Your task to perform on an android device: Clear the cart on bestbuy.com. Search for razer nari on bestbuy.com, select the first entry, add it to the cart, then select checkout. Image 0: 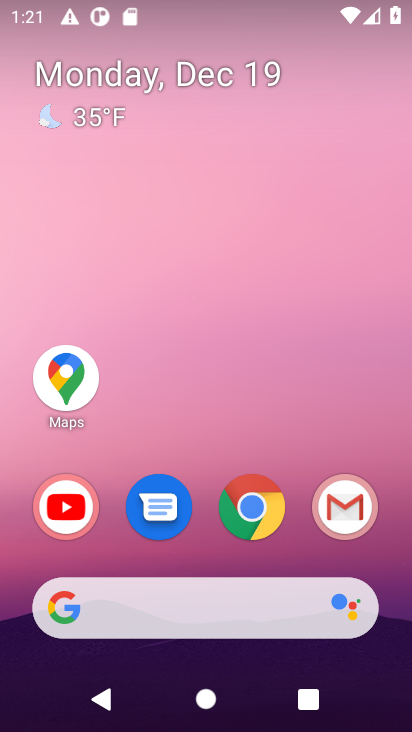
Step 0: click (255, 507)
Your task to perform on an android device: Clear the cart on bestbuy.com. Search for razer nari on bestbuy.com, select the first entry, add it to the cart, then select checkout. Image 1: 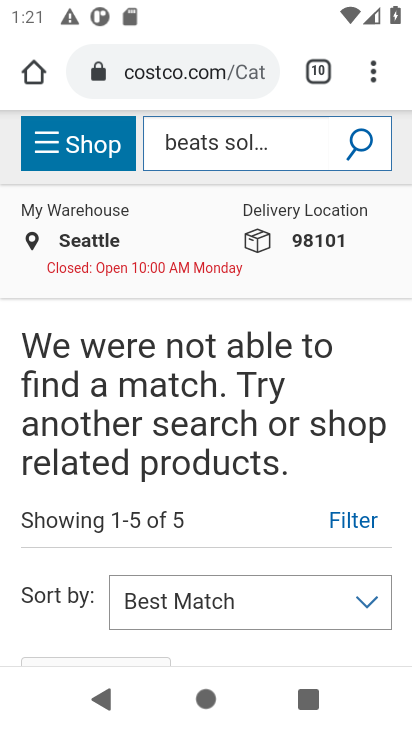
Step 1: click (197, 76)
Your task to perform on an android device: Clear the cart on bestbuy.com. Search for razer nari on bestbuy.com, select the first entry, add it to the cart, then select checkout. Image 2: 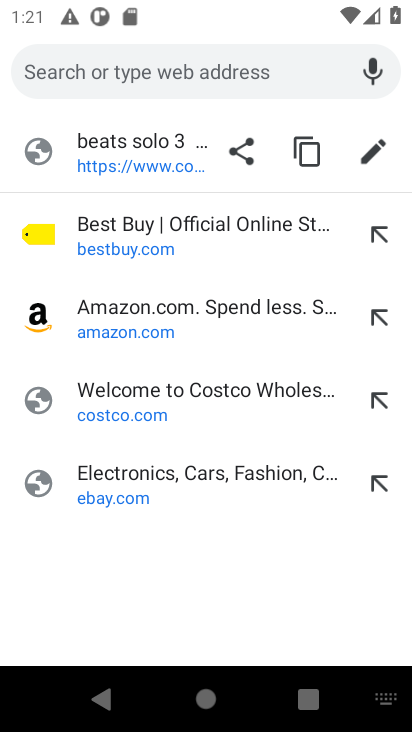
Step 2: click (100, 242)
Your task to perform on an android device: Clear the cart on bestbuy.com. Search for razer nari on bestbuy.com, select the first entry, add it to the cart, then select checkout. Image 3: 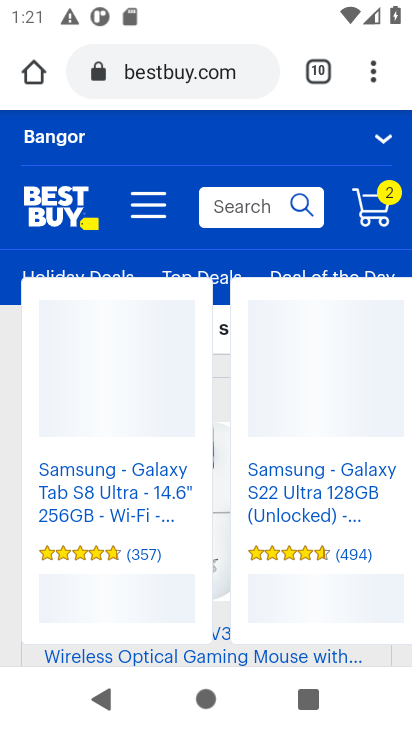
Step 3: click (381, 212)
Your task to perform on an android device: Clear the cart on bestbuy.com. Search for razer nari on bestbuy.com, select the first entry, add it to the cart, then select checkout. Image 4: 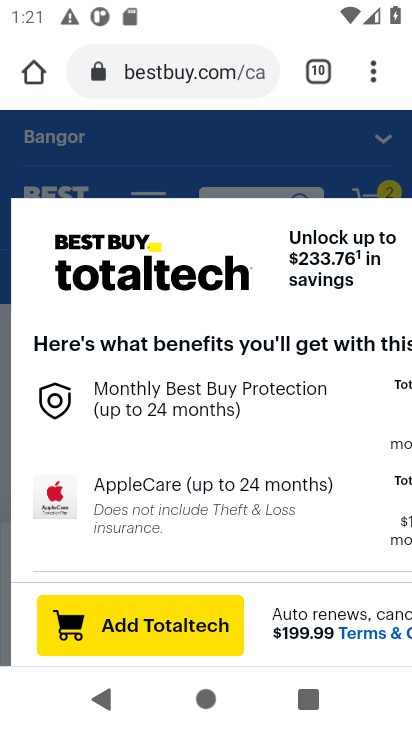
Step 4: drag from (178, 426) to (188, 104)
Your task to perform on an android device: Clear the cart on bestbuy.com. Search for razer nari on bestbuy.com, select the first entry, add it to the cart, then select checkout. Image 5: 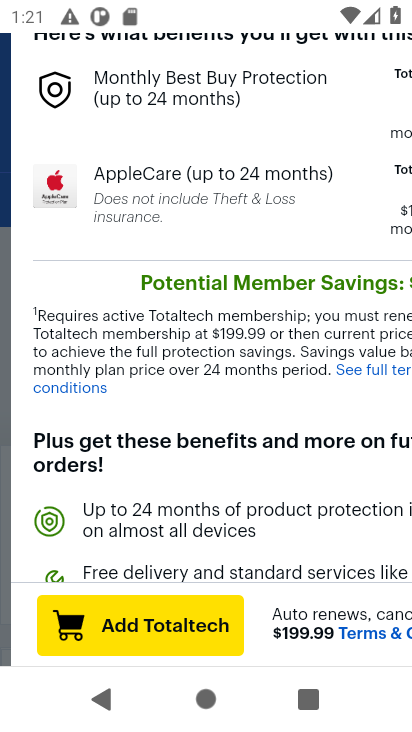
Step 5: drag from (192, 381) to (177, 88)
Your task to perform on an android device: Clear the cart on bestbuy.com. Search for razer nari on bestbuy.com, select the first entry, add it to the cart, then select checkout. Image 6: 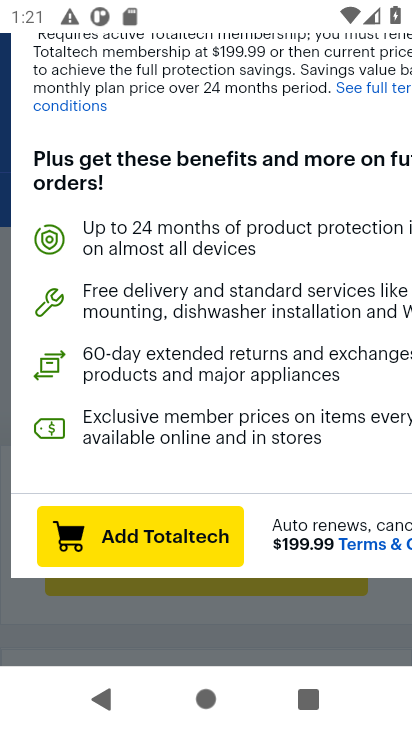
Step 6: click (368, 603)
Your task to perform on an android device: Clear the cart on bestbuy.com. Search for razer nari on bestbuy.com, select the first entry, add it to the cart, then select checkout. Image 7: 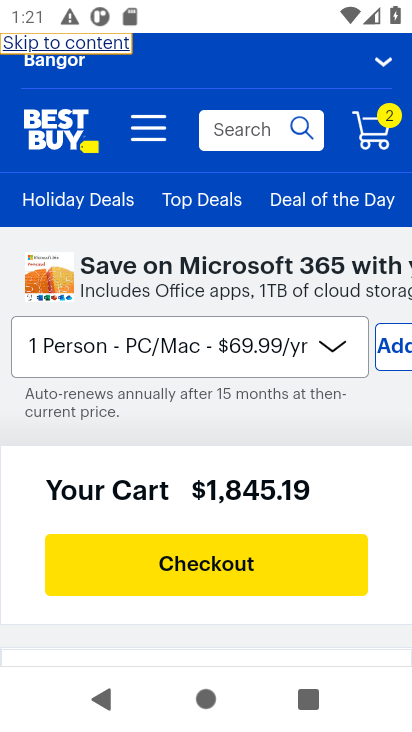
Step 7: drag from (137, 403) to (135, 179)
Your task to perform on an android device: Clear the cart on bestbuy.com. Search for razer nari on bestbuy.com, select the first entry, add it to the cart, then select checkout. Image 8: 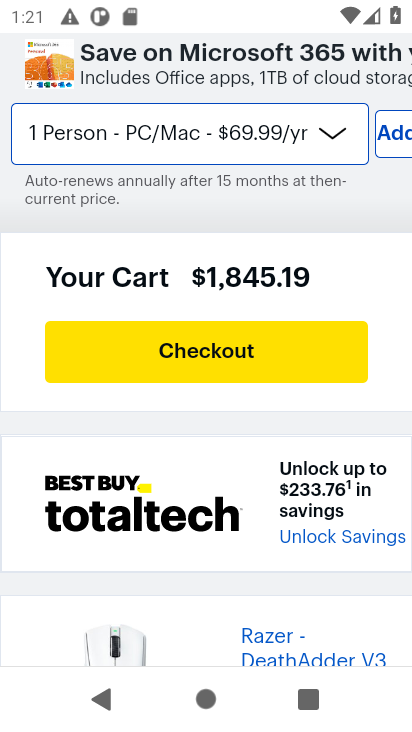
Step 8: drag from (183, 460) to (167, 118)
Your task to perform on an android device: Clear the cart on bestbuy.com. Search for razer nari on bestbuy.com, select the first entry, add it to the cart, then select checkout. Image 9: 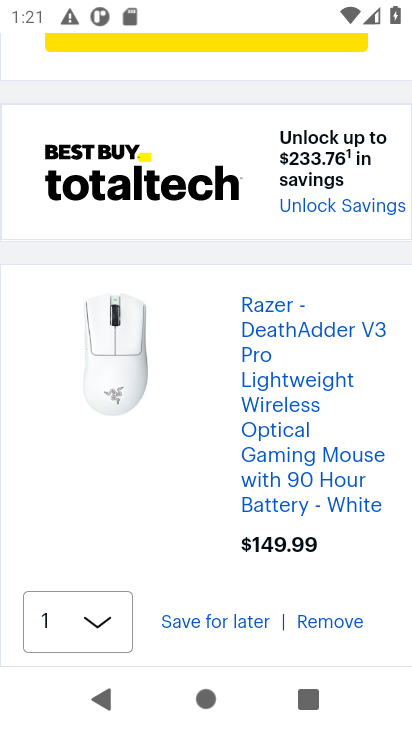
Step 9: drag from (209, 373) to (198, 187)
Your task to perform on an android device: Clear the cart on bestbuy.com. Search for razer nari on bestbuy.com, select the first entry, add it to the cart, then select checkout. Image 10: 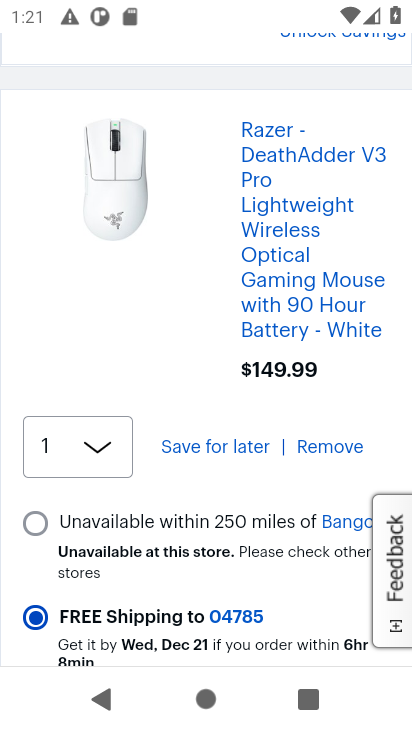
Step 10: click (333, 452)
Your task to perform on an android device: Clear the cart on bestbuy.com. Search for razer nari on bestbuy.com, select the first entry, add it to the cart, then select checkout. Image 11: 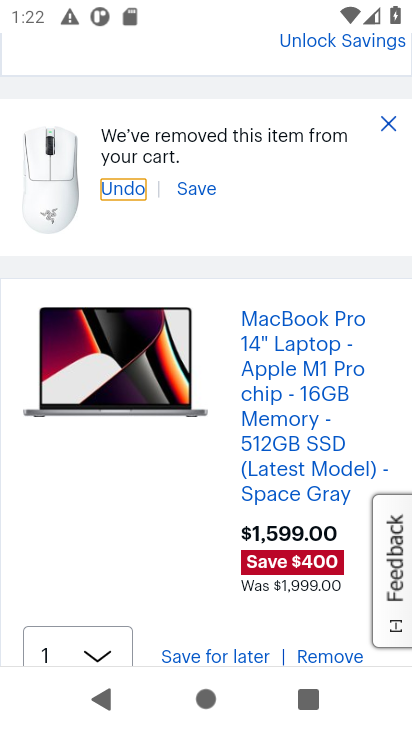
Step 11: drag from (244, 483) to (215, 277)
Your task to perform on an android device: Clear the cart on bestbuy.com. Search for razer nari on bestbuy.com, select the first entry, add it to the cart, then select checkout. Image 12: 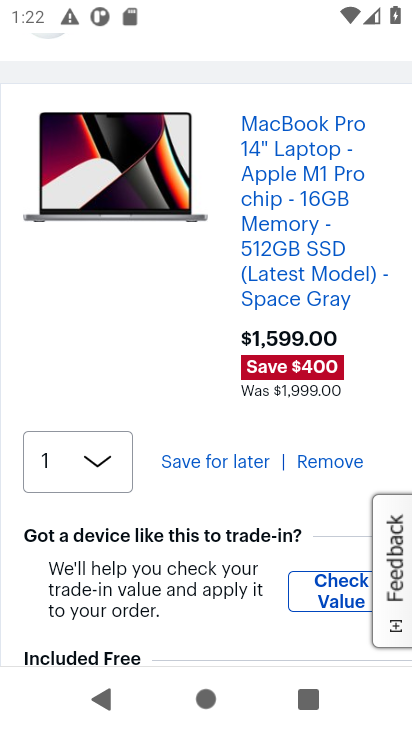
Step 12: click (344, 460)
Your task to perform on an android device: Clear the cart on bestbuy.com. Search for razer nari on bestbuy.com, select the first entry, add it to the cart, then select checkout. Image 13: 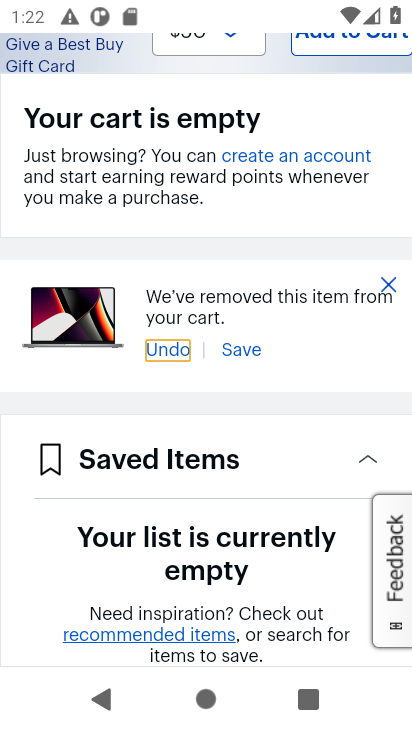
Step 13: drag from (237, 459) to (216, 529)
Your task to perform on an android device: Clear the cart on bestbuy.com. Search for razer nari on bestbuy.com, select the first entry, add it to the cart, then select checkout. Image 14: 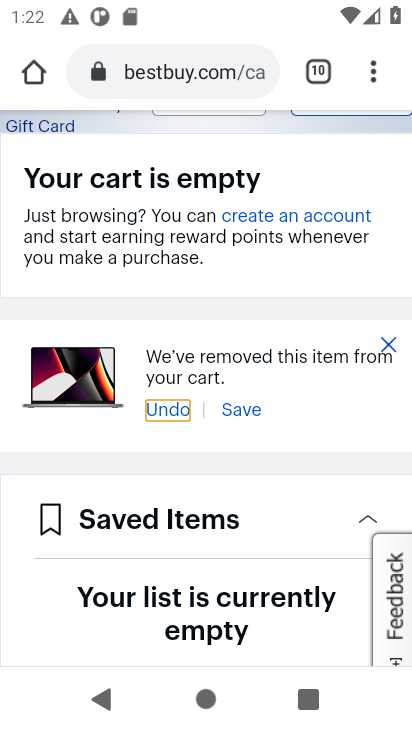
Step 14: drag from (76, 272) to (103, 520)
Your task to perform on an android device: Clear the cart on bestbuy.com. Search for razer nari on bestbuy.com, select the first entry, add it to the cart, then select checkout. Image 15: 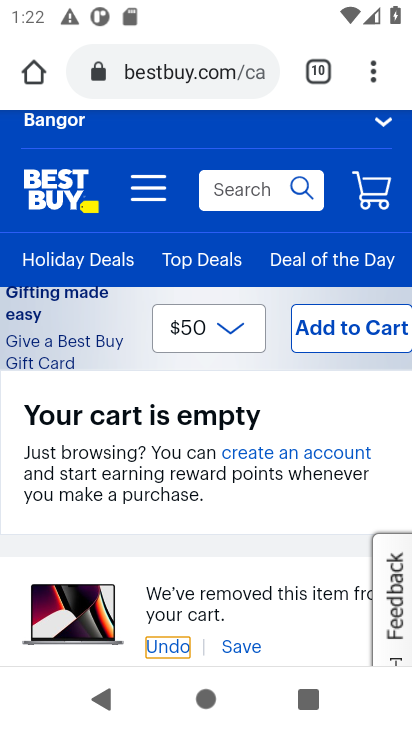
Step 15: click (235, 186)
Your task to perform on an android device: Clear the cart on bestbuy.com. Search for razer nari on bestbuy.com, select the first entry, add it to the cart, then select checkout. Image 16: 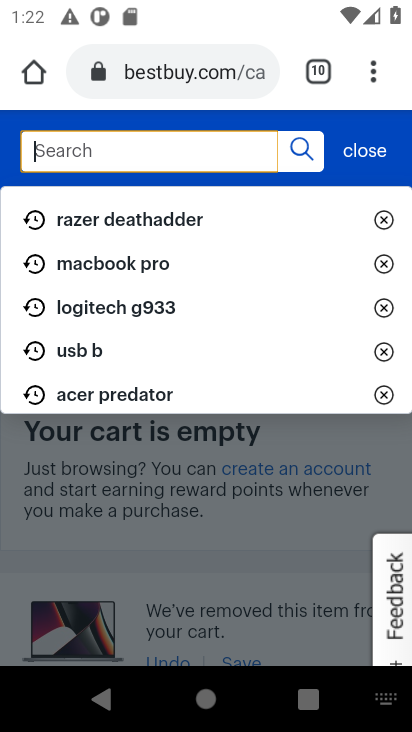
Step 16: type "razer nari"
Your task to perform on an android device: Clear the cart on bestbuy.com. Search for razer nari on bestbuy.com, select the first entry, add it to the cart, then select checkout. Image 17: 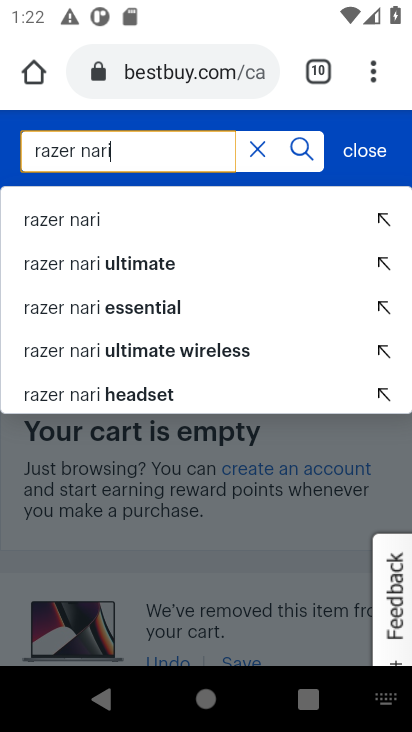
Step 17: click (91, 229)
Your task to perform on an android device: Clear the cart on bestbuy.com. Search for razer nari on bestbuy.com, select the first entry, add it to the cart, then select checkout. Image 18: 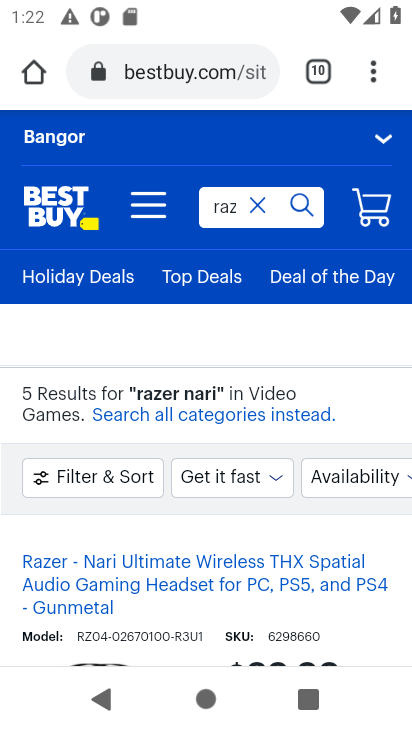
Step 18: drag from (160, 534) to (172, 295)
Your task to perform on an android device: Clear the cart on bestbuy.com. Search for razer nari on bestbuy.com, select the first entry, add it to the cart, then select checkout. Image 19: 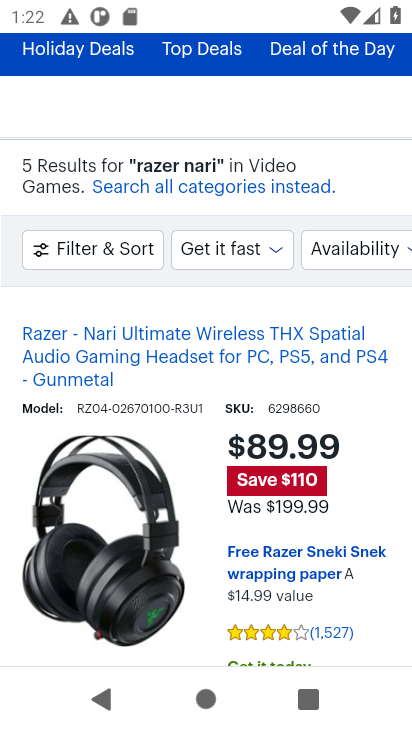
Step 19: click (141, 344)
Your task to perform on an android device: Clear the cart on bestbuy.com. Search for razer nari on bestbuy.com, select the first entry, add it to the cart, then select checkout. Image 20: 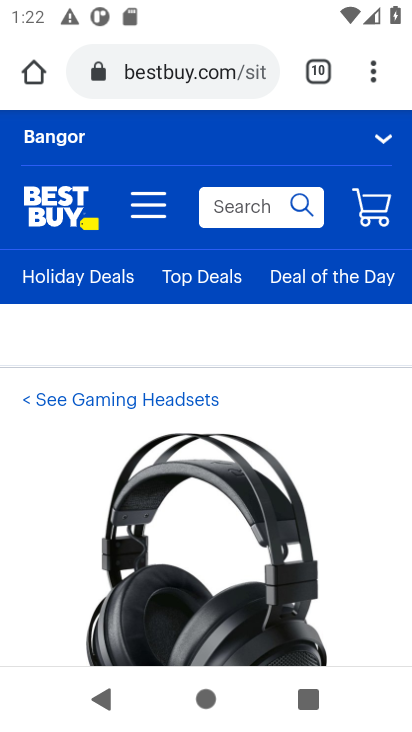
Step 20: drag from (160, 471) to (163, 207)
Your task to perform on an android device: Clear the cart on bestbuy.com. Search for razer nari on bestbuy.com, select the first entry, add it to the cart, then select checkout. Image 21: 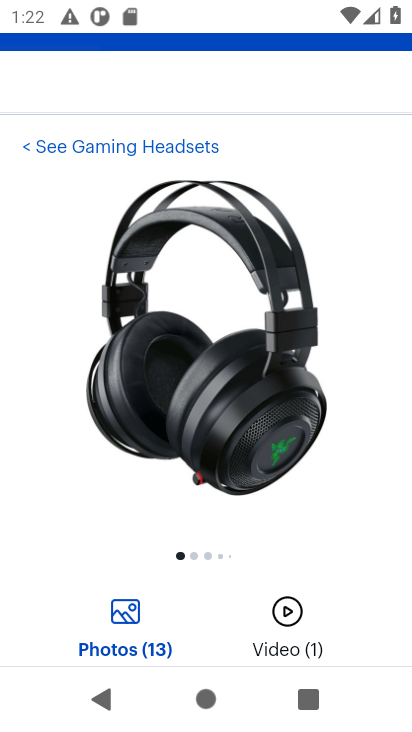
Step 21: drag from (181, 473) to (163, 168)
Your task to perform on an android device: Clear the cart on bestbuy.com. Search for razer nari on bestbuy.com, select the first entry, add it to the cart, then select checkout. Image 22: 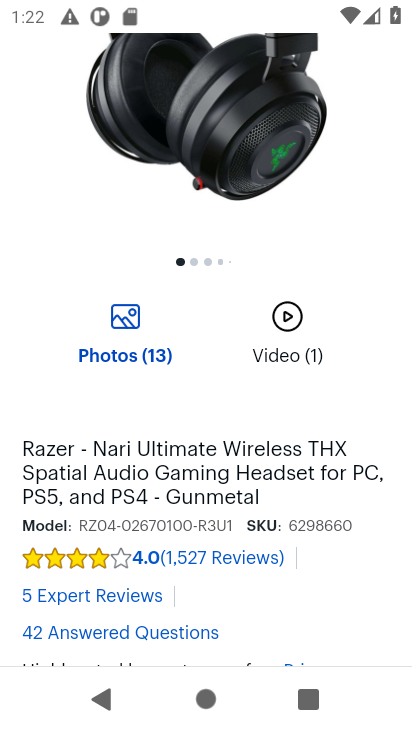
Step 22: drag from (164, 443) to (168, 95)
Your task to perform on an android device: Clear the cart on bestbuy.com. Search for razer nari on bestbuy.com, select the first entry, add it to the cart, then select checkout. Image 23: 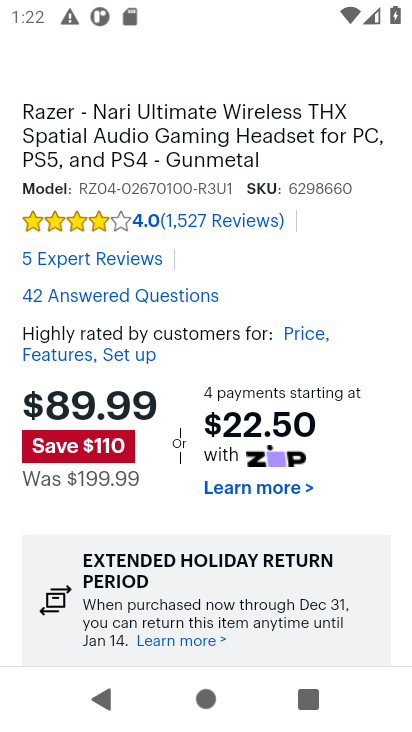
Step 23: drag from (162, 463) to (168, 150)
Your task to perform on an android device: Clear the cart on bestbuy.com. Search for razer nari on bestbuy.com, select the first entry, add it to the cart, then select checkout. Image 24: 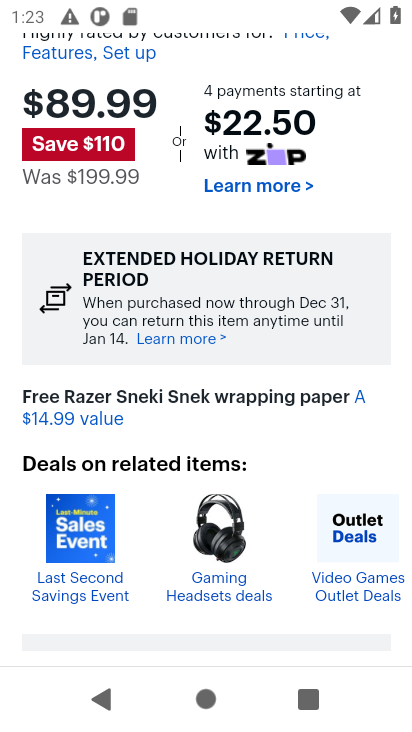
Step 24: drag from (199, 459) to (192, 155)
Your task to perform on an android device: Clear the cart on bestbuy.com. Search for razer nari on bestbuy.com, select the first entry, add it to the cart, then select checkout. Image 25: 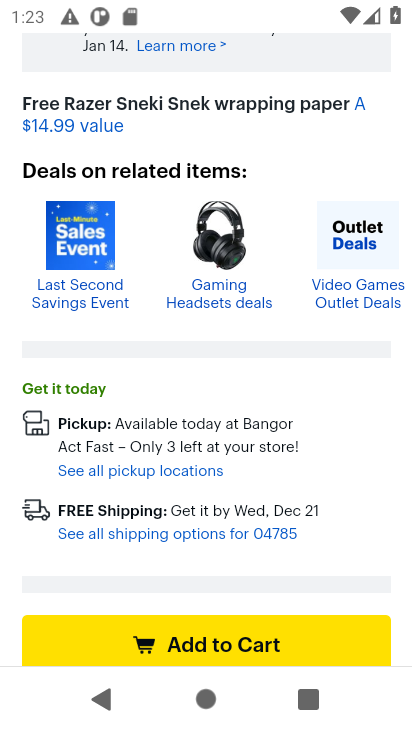
Step 25: click (201, 636)
Your task to perform on an android device: Clear the cart on bestbuy.com. Search for razer nari on bestbuy.com, select the first entry, add it to the cart, then select checkout. Image 26: 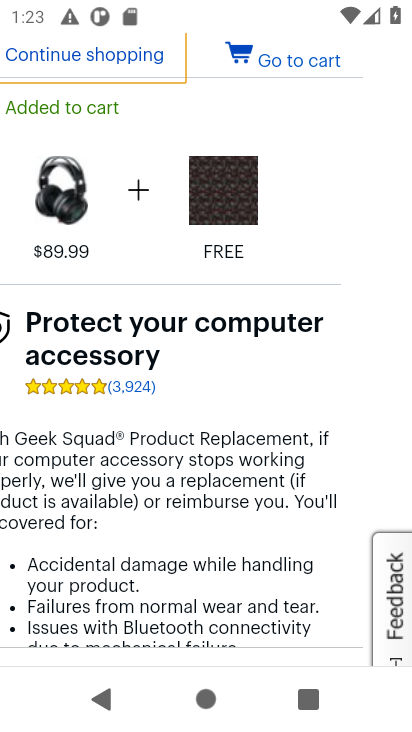
Step 26: click (291, 61)
Your task to perform on an android device: Clear the cart on bestbuy.com. Search for razer nari on bestbuy.com, select the first entry, add it to the cart, then select checkout. Image 27: 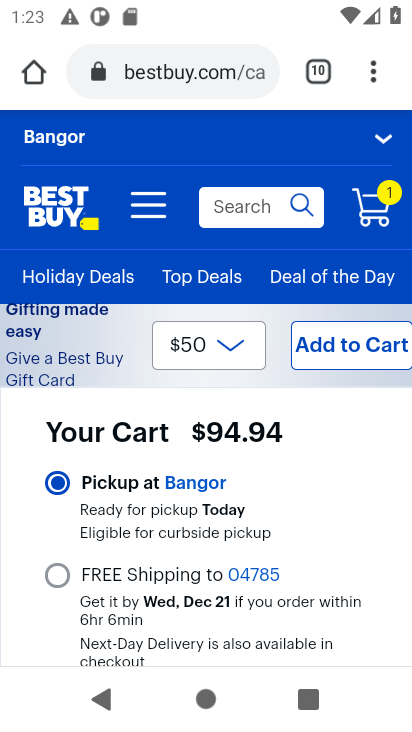
Step 27: drag from (208, 535) to (214, 216)
Your task to perform on an android device: Clear the cart on bestbuy.com. Search for razer nari on bestbuy.com, select the first entry, add it to the cart, then select checkout. Image 28: 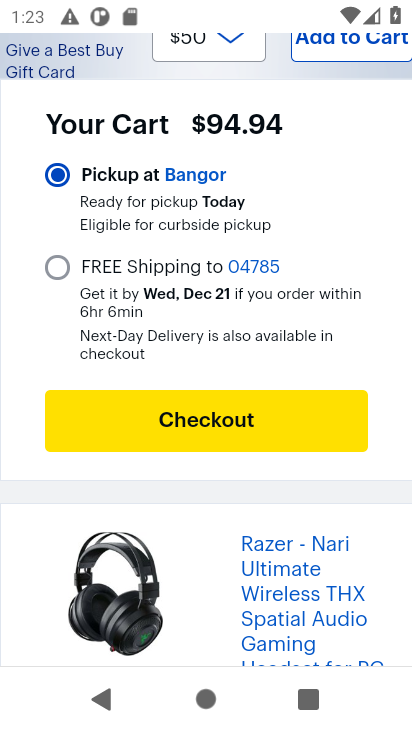
Step 28: click (201, 428)
Your task to perform on an android device: Clear the cart on bestbuy.com. Search for razer nari on bestbuy.com, select the first entry, add it to the cart, then select checkout. Image 29: 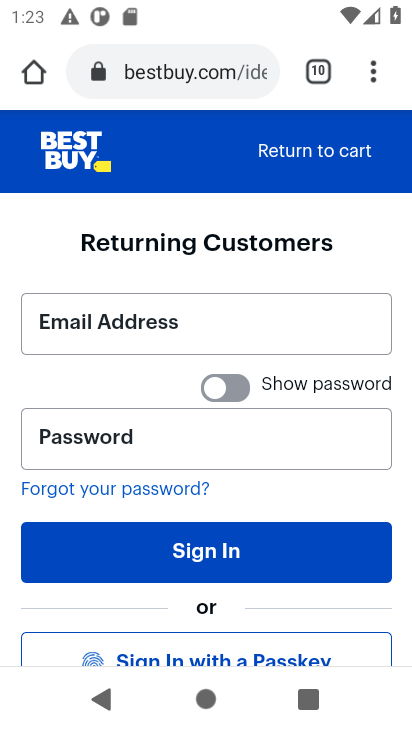
Step 29: task complete